Your task to perform on an android device: turn off javascript in the chrome app Image 0: 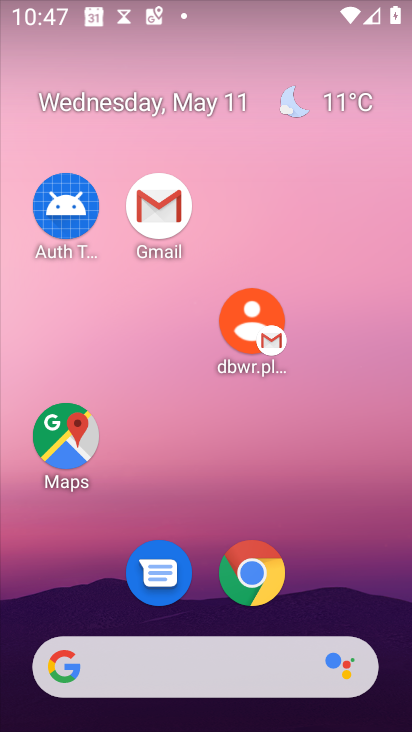
Step 0: drag from (384, 590) to (199, 100)
Your task to perform on an android device: turn off javascript in the chrome app Image 1: 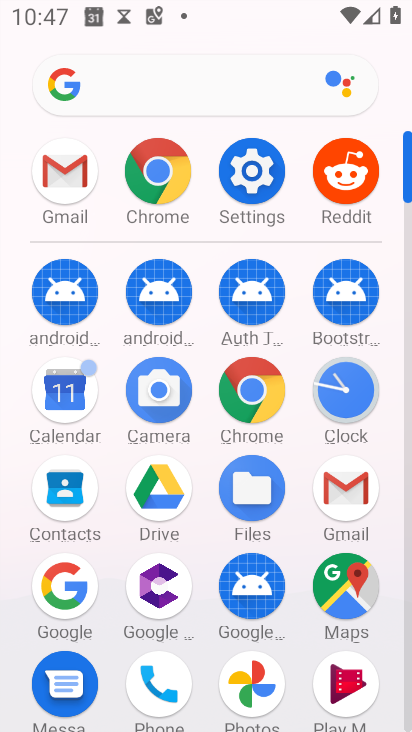
Step 1: click (153, 178)
Your task to perform on an android device: turn off javascript in the chrome app Image 2: 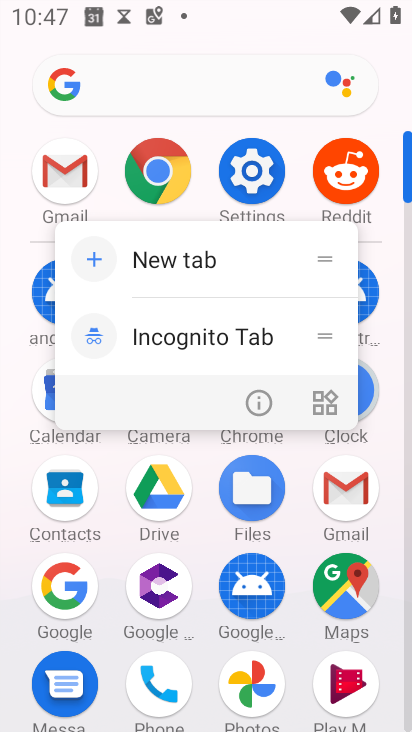
Step 2: click (153, 178)
Your task to perform on an android device: turn off javascript in the chrome app Image 3: 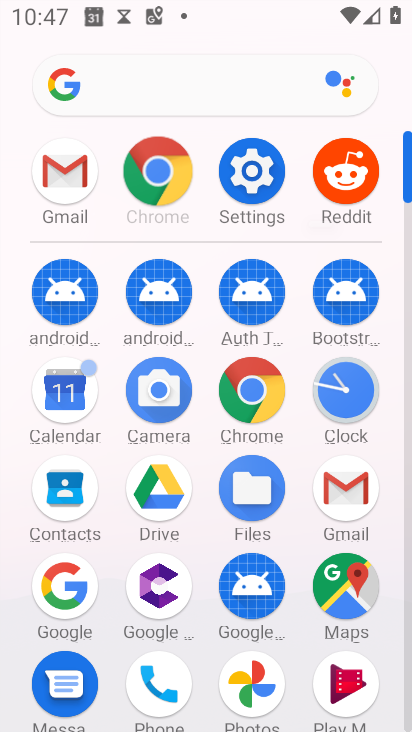
Step 3: click (153, 174)
Your task to perform on an android device: turn off javascript in the chrome app Image 4: 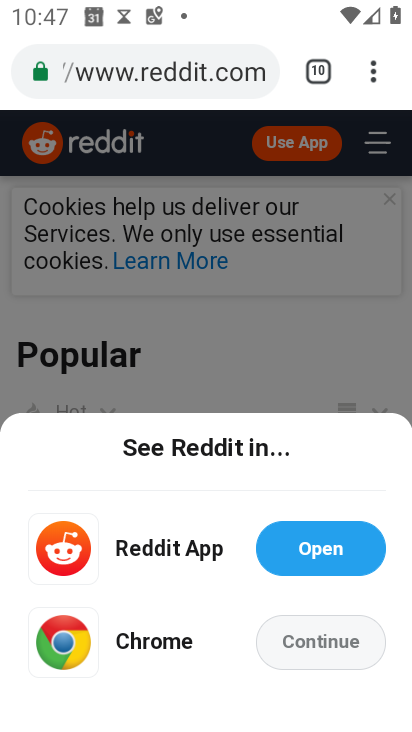
Step 4: drag from (371, 66) to (123, 558)
Your task to perform on an android device: turn off javascript in the chrome app Image 5: 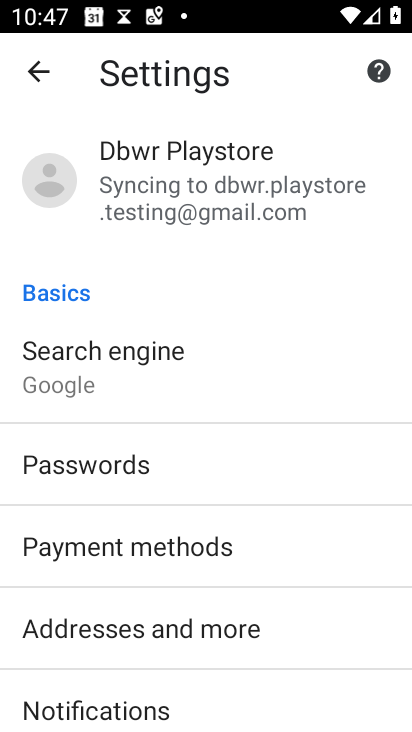
Step 5: drag from (208, 551) to (166, 132)
Your task to perform on an android device: turn off javascript in the chrome app Image 6: 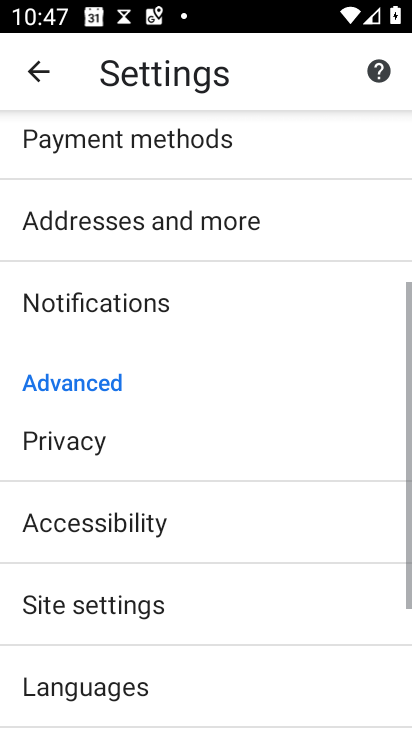
Step 6: drag from (194, 520) to (119, 147)
Your task to perform on an android device: turn off javascript in the chrome app Image 7: 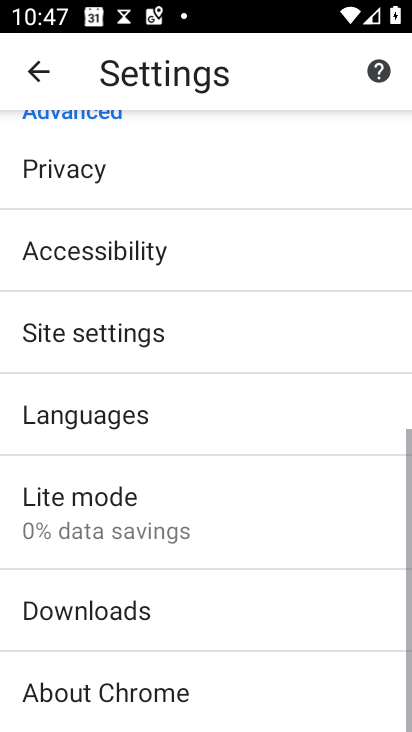
Step 7: drag from (148, 555) to (96, 203)
Your task to perform on an android device: turn off javascript in the chrome app Image 8: 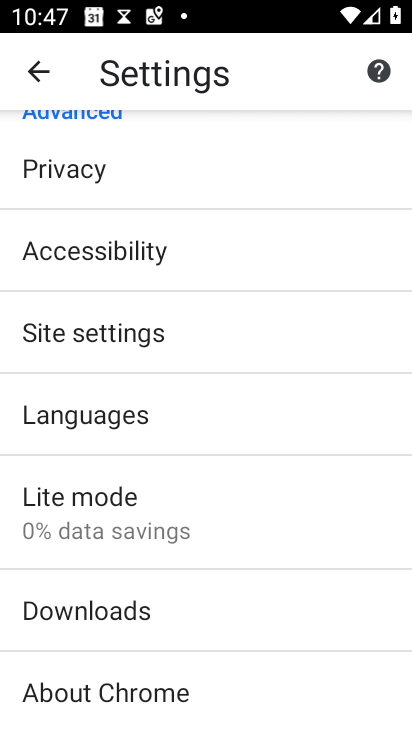
Step 8: click (82, 325)
Your task to perform on an android device: turn off javascript in the chrome app Image 9: 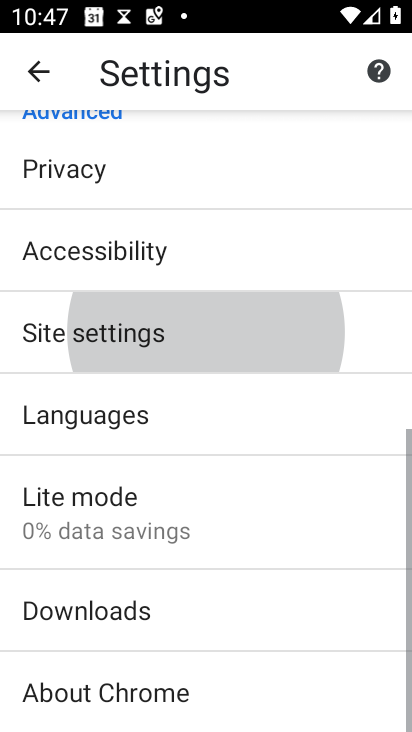
Step 9: click (82, 325)
Your task to perform on an android device: turn off javascript in the chrome app Image 10: 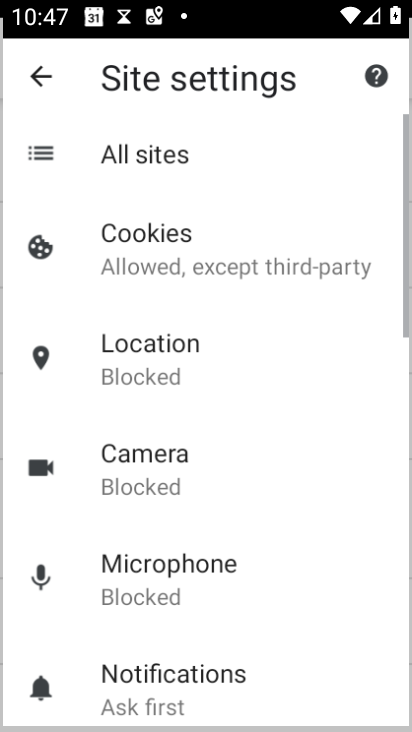
Step 10: click (82, 325)
Your task to perform on an android device: turn off javascript in the chrome app Image 11: 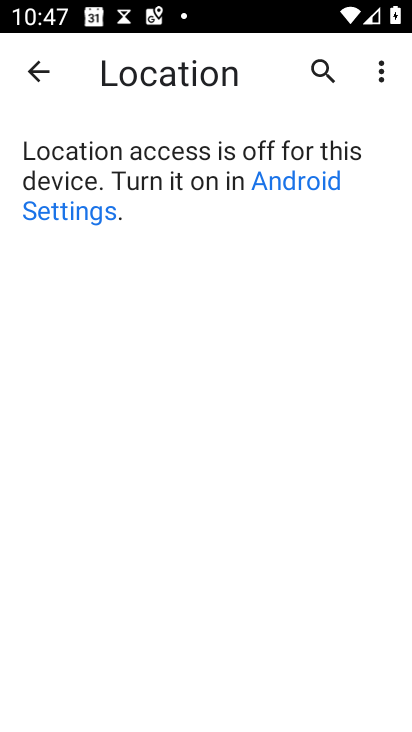
Step 11: drag from (222, 494) to (151, 226)
Your task to perform on an android device: turn off javascript in the chrome app Image 12: 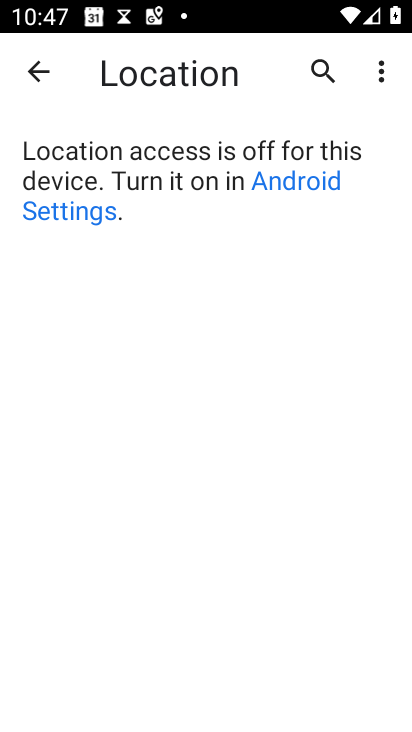
Step 12: click (35, 69)
Your task to perform on an android device: turn off javascript in the chrome app Image 13: 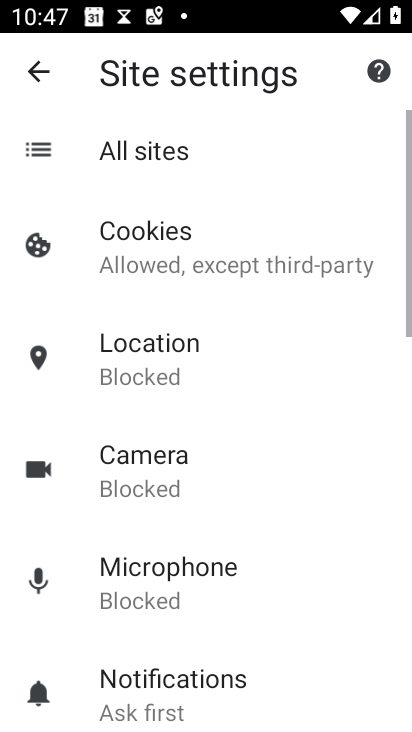
Step 13: drag from (187, 501) to (89, 237)
Your task to perform on an android device: turn off javascript in the chrome app Image 14: 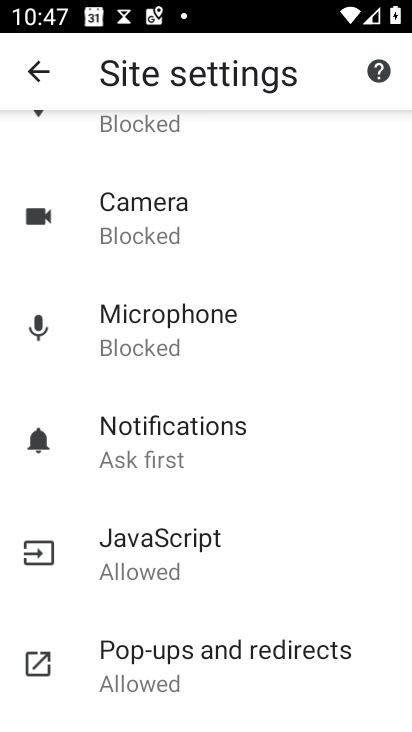
Step 14: click (154, 536)
Your task to perform on an android device: turn off javascript in the chrome app Image 15: 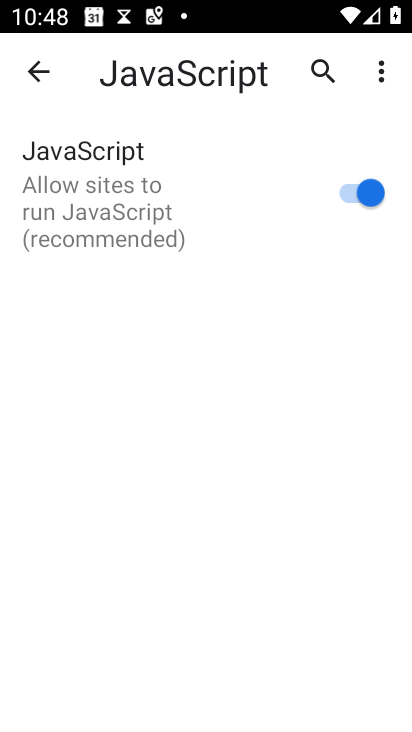
Step 15: click (363, 185)
Your task to perform on an android device: turn off javascript in the chrome app Image 16: 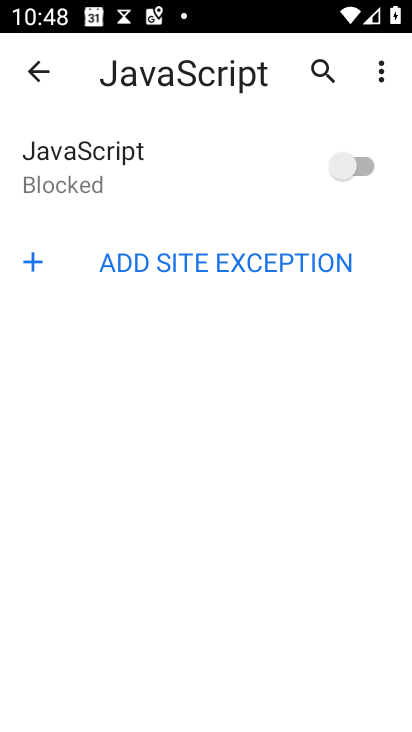
Step 16: task complete